Your task to perform on an android device: change timer sound Image 0: 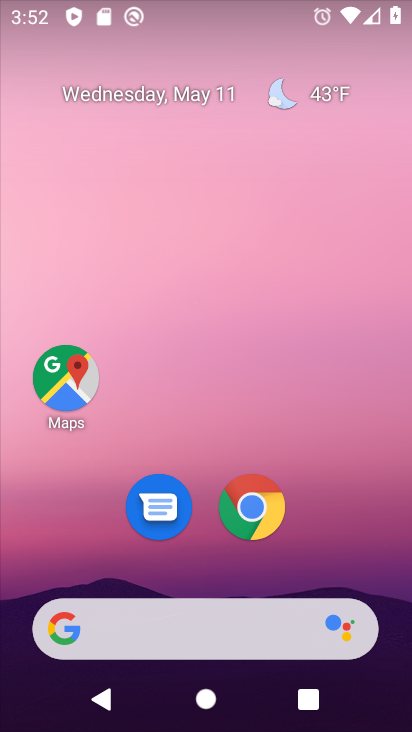
Step 0: drag from (393, 630) to (324, 71)
Your task to perform on an android device: change timer sound Image 1: 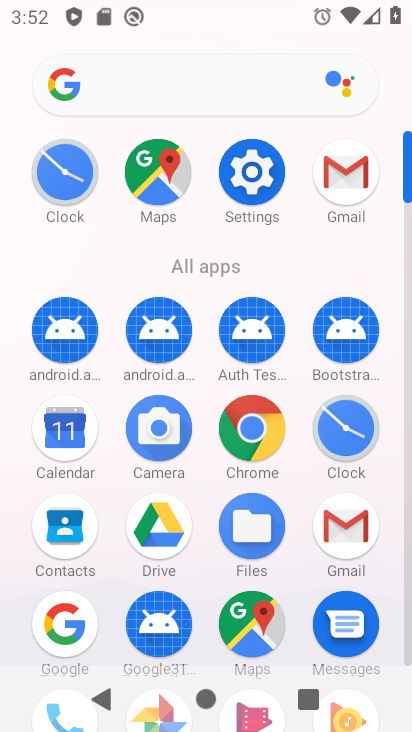
Step 1: click (406, 655)
Your task to perform on an android device: change timer sound Image 2: 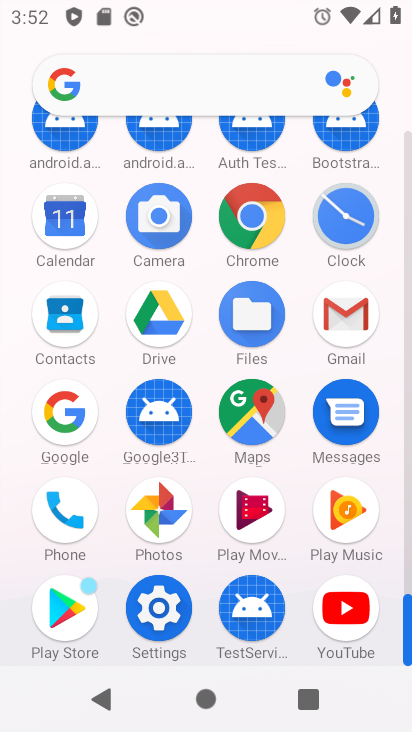
Step 2: click (157, 608)
Your task to perform on an android device: change timer sound Image 3: 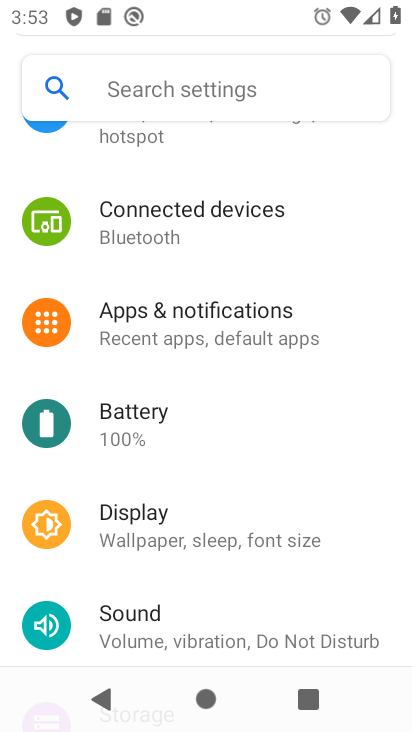
Step 3: drag from (336, 546) to (320, 168)
Your task to perform on an android device: change timer sound Image 4: 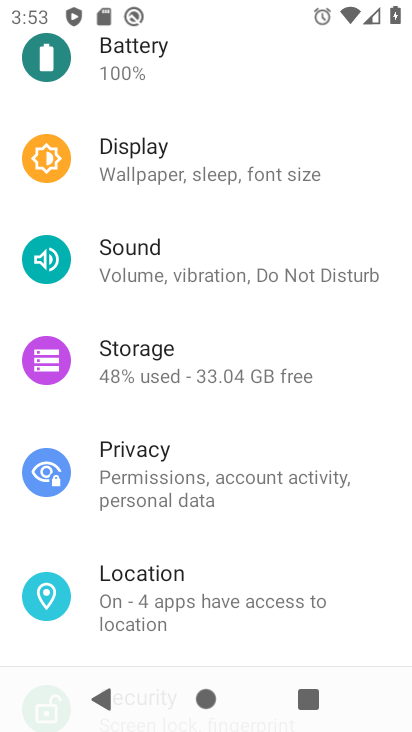
Step 4: click (120, 264)
Your task to perform on an android device: change timer sound Image 5: 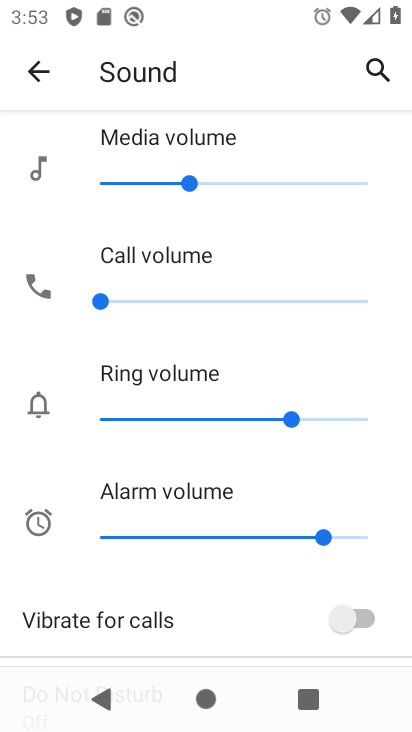
Step 5: drag from (289, 586) to (318, 177)
Your task to perform on an android device: change timer sound Image 6: 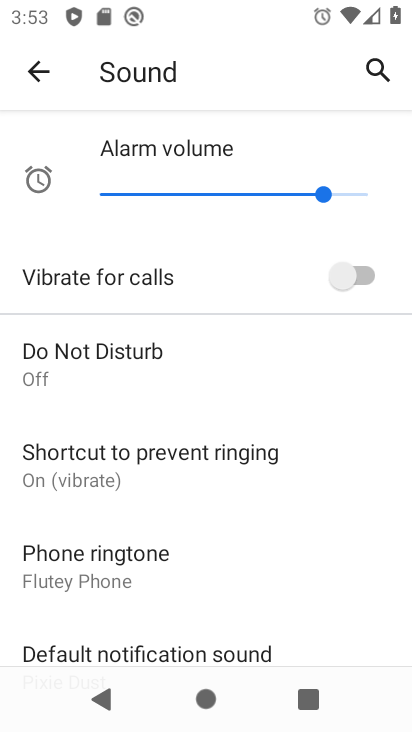
Step 6: drag from (259, 619) to (352, 226)
Your task to perform on an android device: change timer sound Image 7: 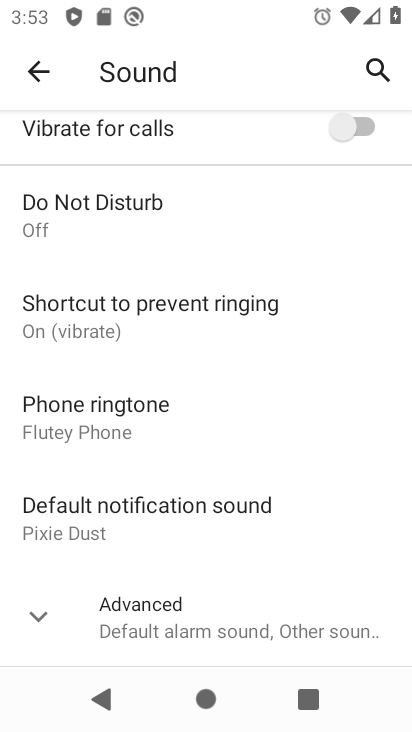
Step 7: click (35, 618)
Your task to perform on an android device: change timer sound Image 8: 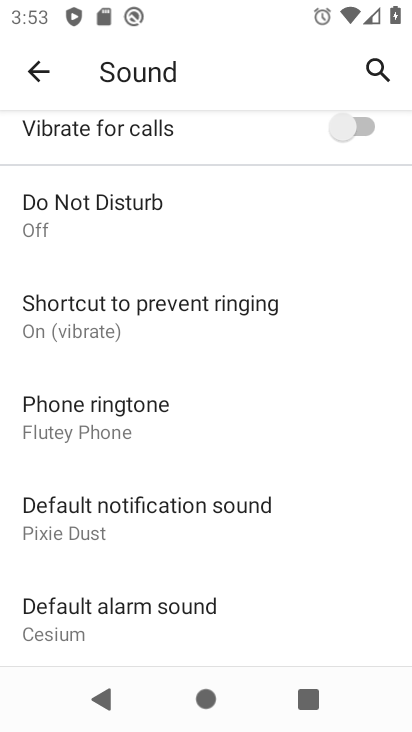
Step 8: task complete